Your task to perform on an android device: check google app version Image 0: 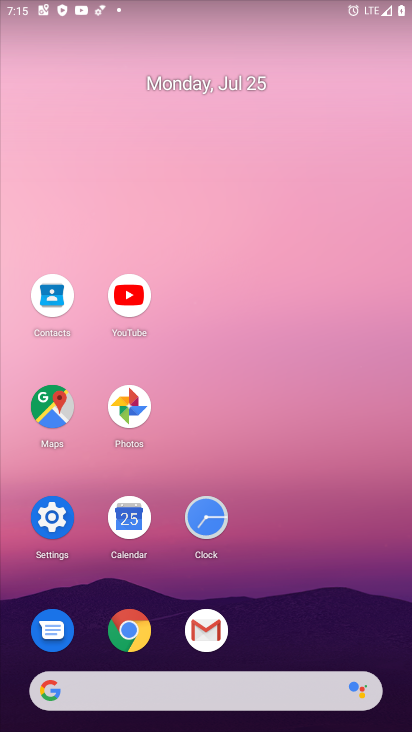
Step 0: click (40, 697)
Your task to perform on an android device: check google app version Image 1: 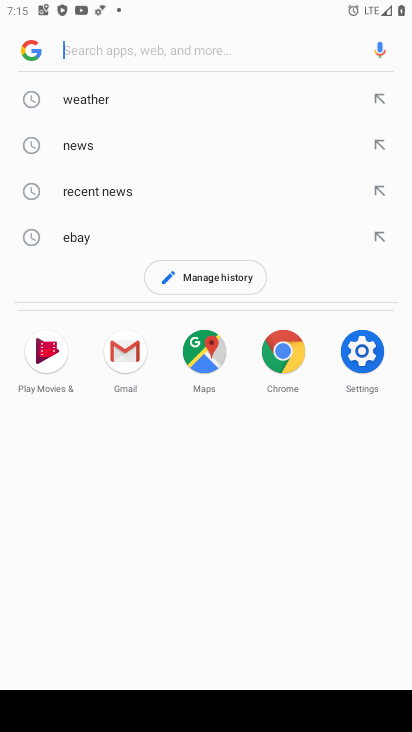
Step 1: click (28, 45)
Your task to perform on an android device: check google app version Image 2: 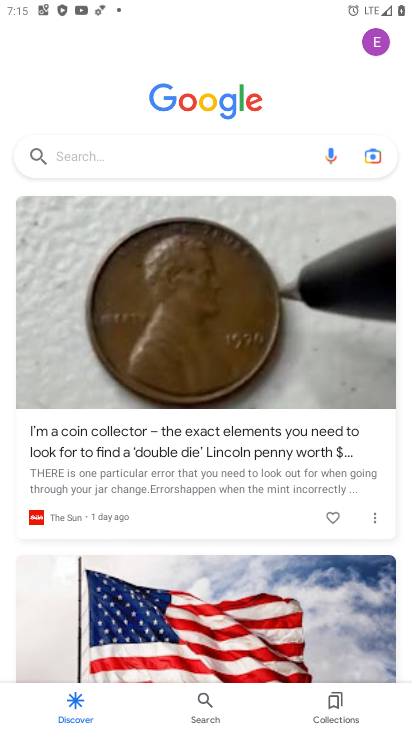
Step 2: click (371, 42)
Your task to perform on an android device: check google app version Image 3: 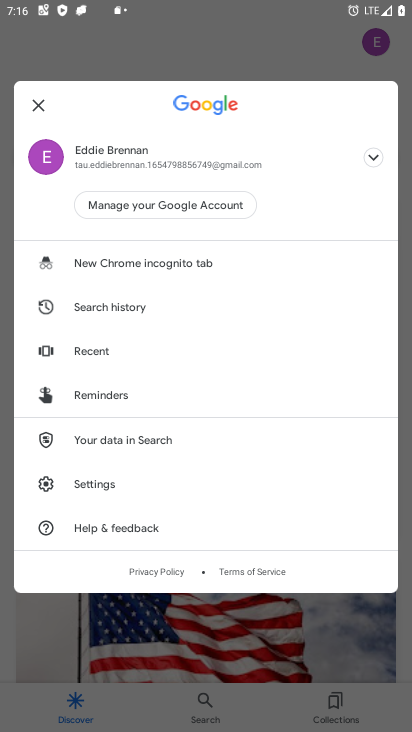
Step 3: click (74, 491)
Your task to perform on an android device: check google app version Image 4: 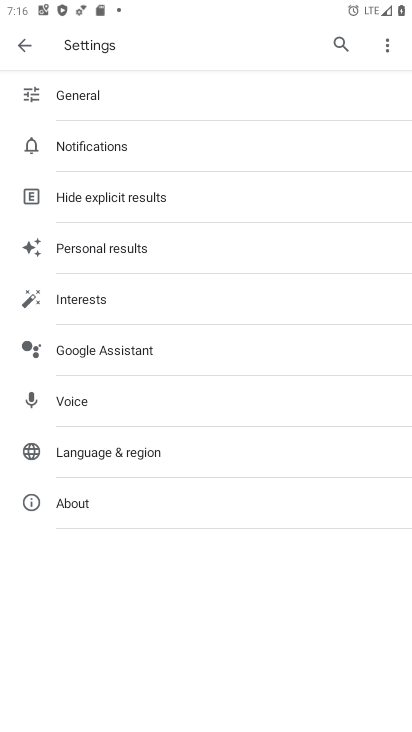
Step 4: click (94, 499)
Your task to perform on an android device: check google app version Image 5: 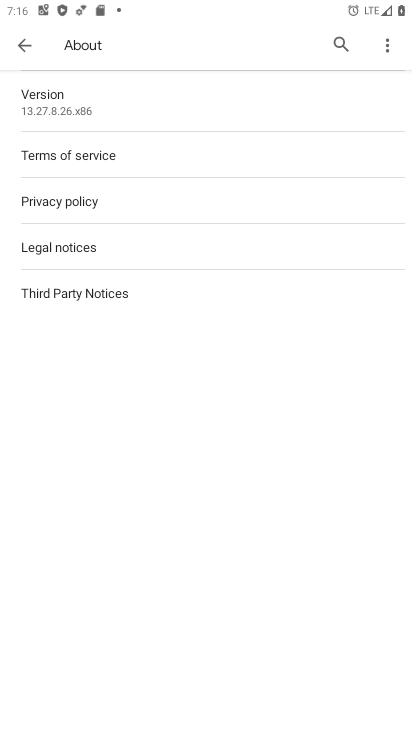
Step 5: task complete